Your task to perform on an android device: Open calendar and show me the first week of next month Image 0: 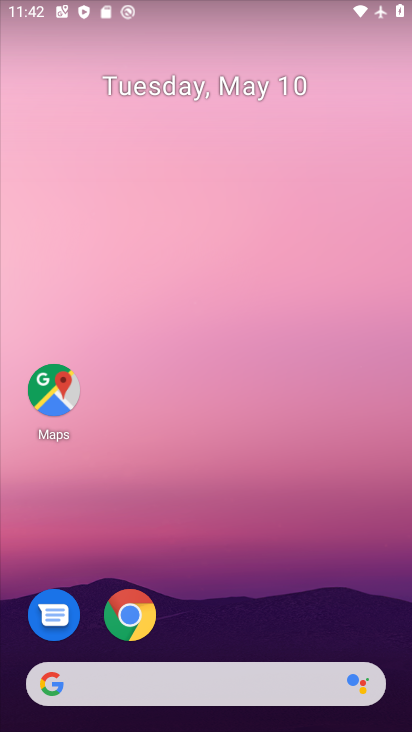
Step 0: drag from (269, 552) to (227, 3)
Your task to perform on an android device: Open calendar and show me the first week of next month Image 1: 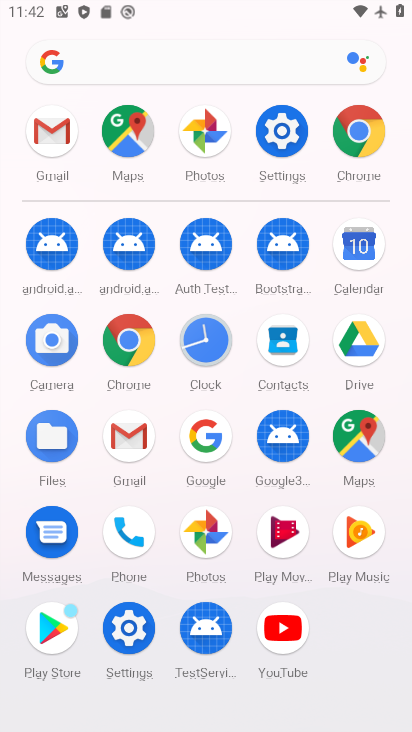
Step 1: drag from (33, 519) to (18, 239)
Your task to perform on an android device: Open calendar and show me the first week of next month Image 2: 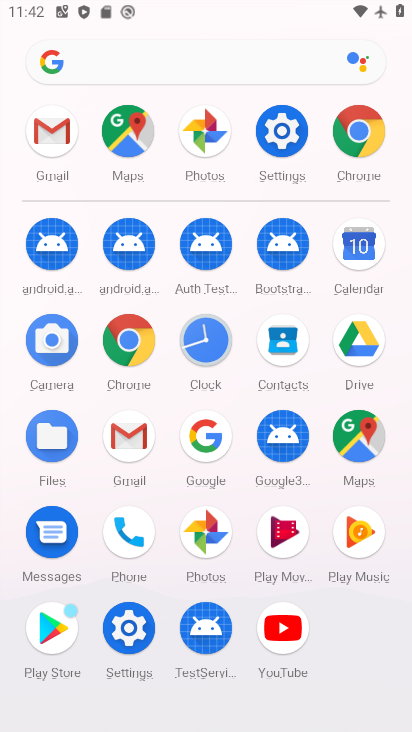
Step 2: click (352, 241)
Your task to perform on an android device: Open calendar and show me the first week of next month Image 3: 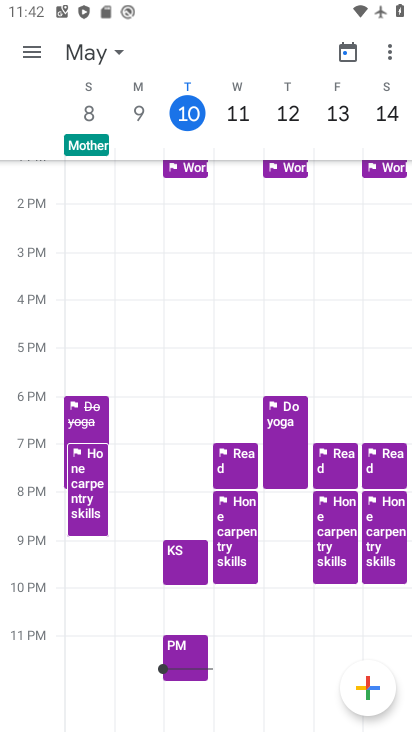
Step 3: click (91, 44)
Your task to perform on an android device: Open calendar and show me the first week of next month Image 4: 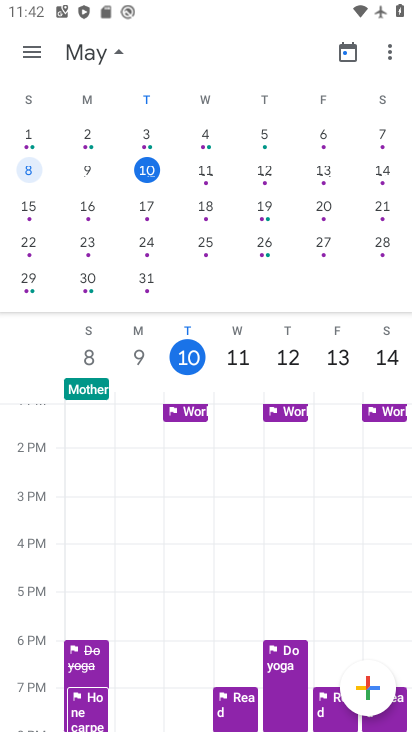
Step 4: drag from (356, 188) to (3, 157)
Your task to perform on an android device: Open calendar and show me the first week of next month Image 5: 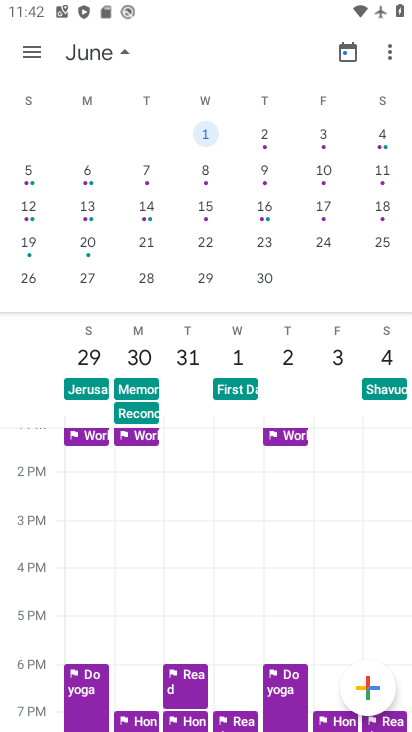
Step 5: click (200, 129)
Your task to perform on an android device: Open calendar and show me the first week of next month Image 6: 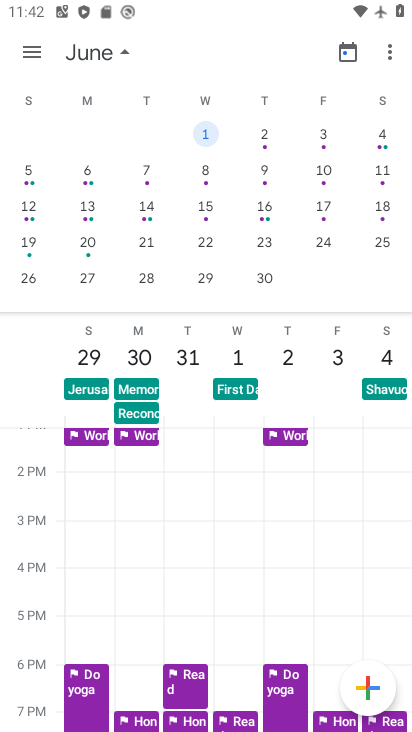
Step 6: click (36, 42)
Your task to perform on an android device: Open calendar and show me the first week of next month Image 7: 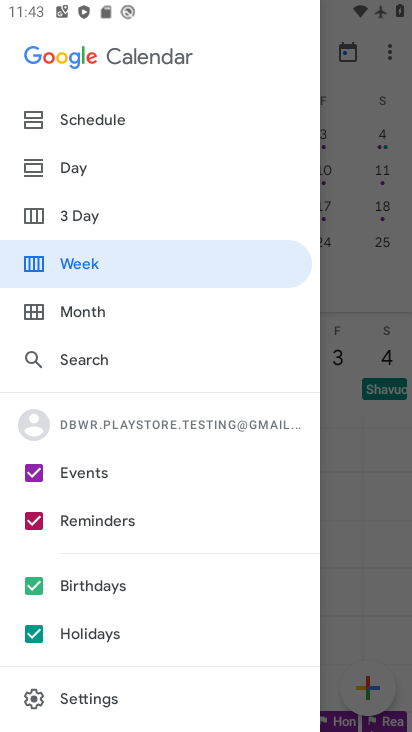
Step 7: click (121, 265)
Your task to perform on an android device: Open calendar and show me the first week of next month Image 8: 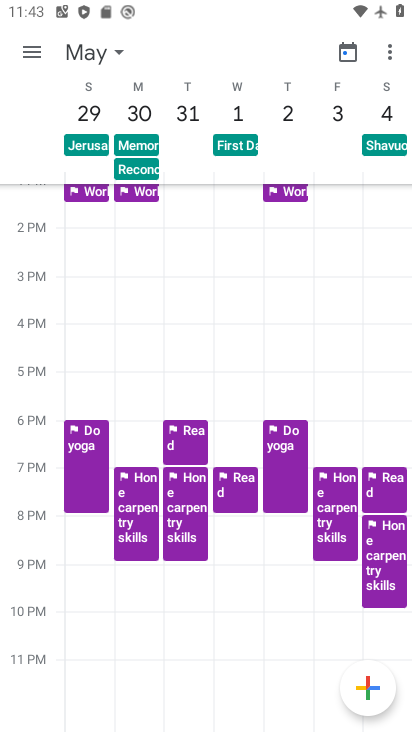
Step 8: task complete